Your task to perform on an android device: Go to Yahoo.com Image 0: 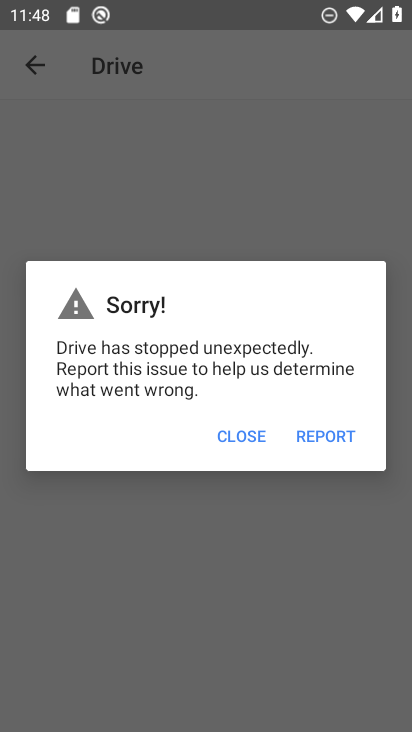
Step 0: press home button
Your task to perform on an android device: Go to Yahoo.com Image 1: 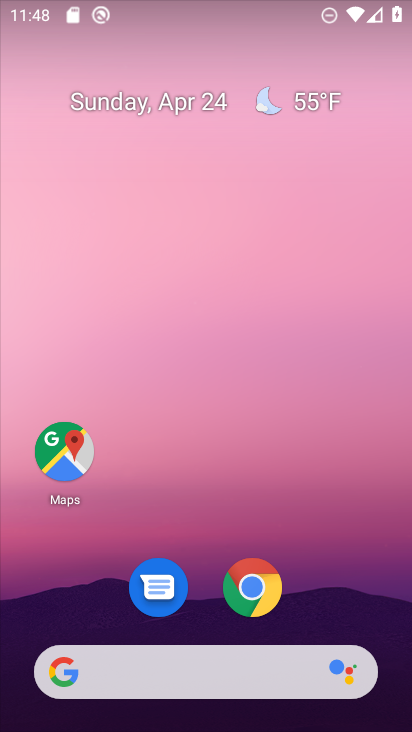
Step 1: drag from (323, 615) to (255, 48)
Your task to perform on an android device: Go to Yahoo.com Image 2: 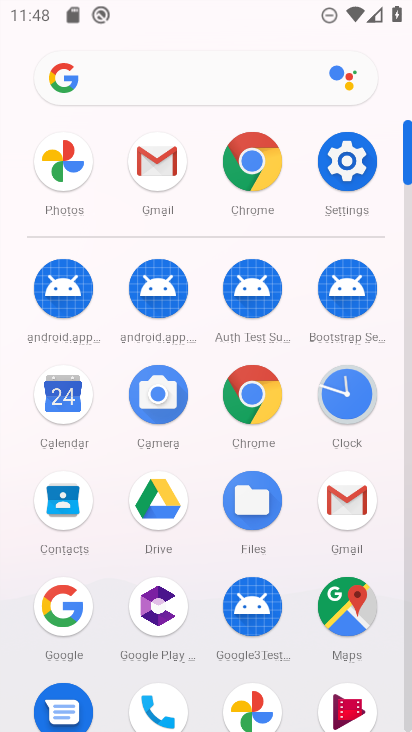
Step 2: click (272, 397)
Your task to perform on an android device: Go to Yahoo.com Image 3: 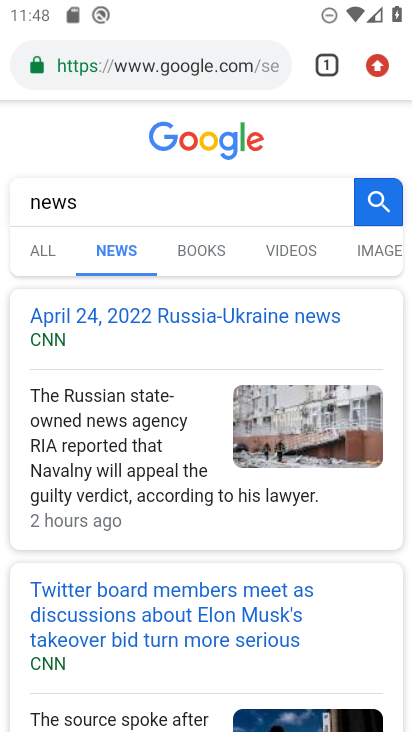
Step 3: click (170, 64)
Your task to perform on an android device: Go to Yahoo.com Image 4: 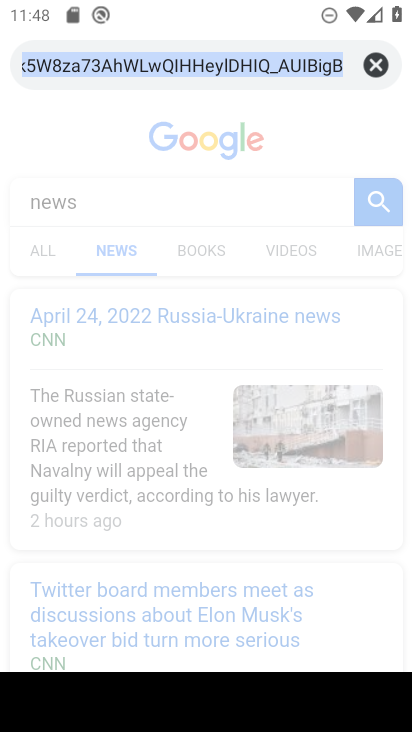
Step 4: type "yahoo.com"
Your task to perform on an android device: Go to Yahoo.com Image 5: 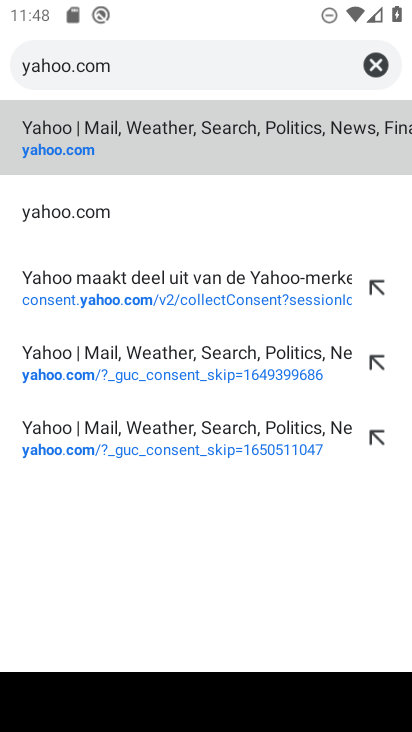
Step 5: click (183, 153)
Your task to perform on an android device: Go to Yahoo.com Image 6: 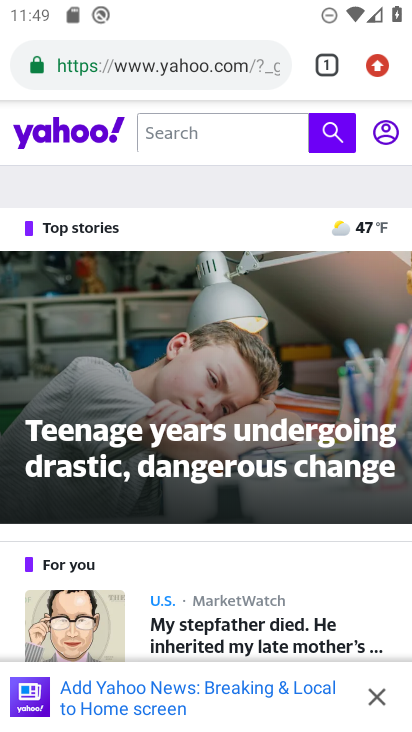
Step 6: task complete